Your task to perform on an android device: Open my contact list Image 0: 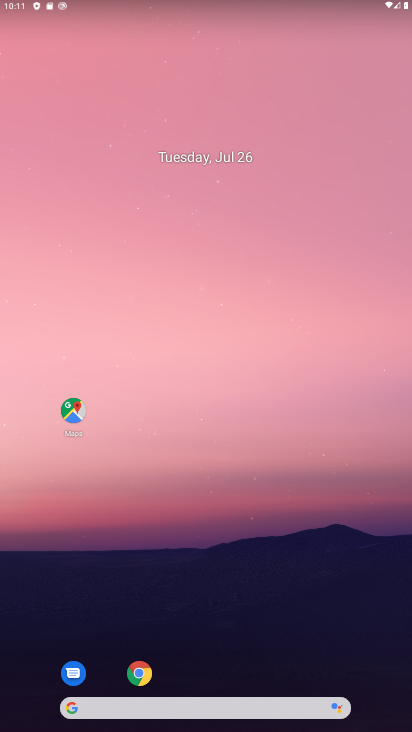
Step 0: drag from (257, 375) to (268, 11)
Your task to perform on an android device: Open my contact list Image 1: 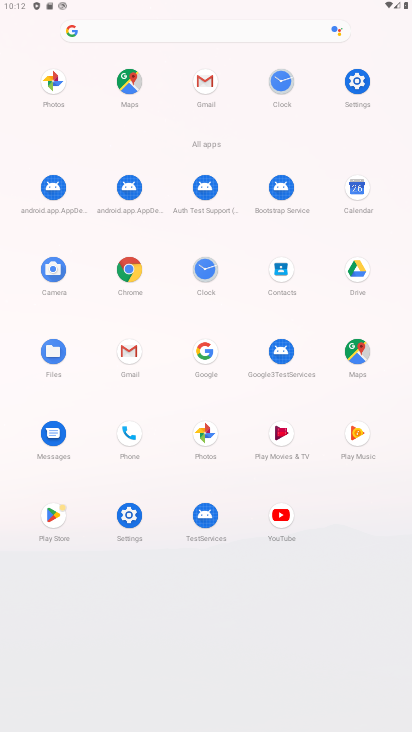
Step 1: click (282, 273)
Your task to perform on an android device: Open my contact list Image 2: 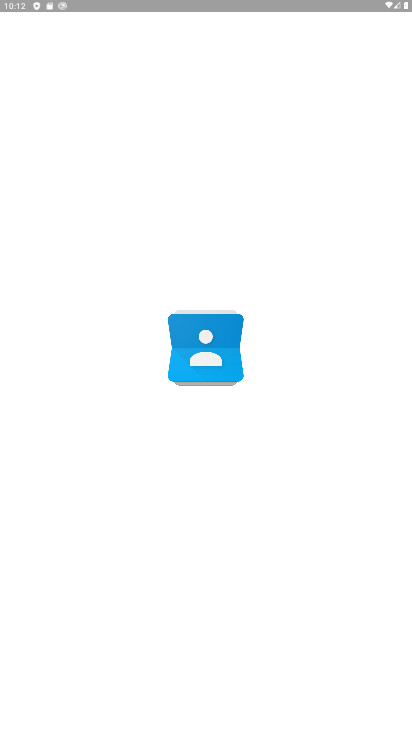
Step 2: click (287, 271)
Your task to perform on an android device: Open my contact list Image 3: 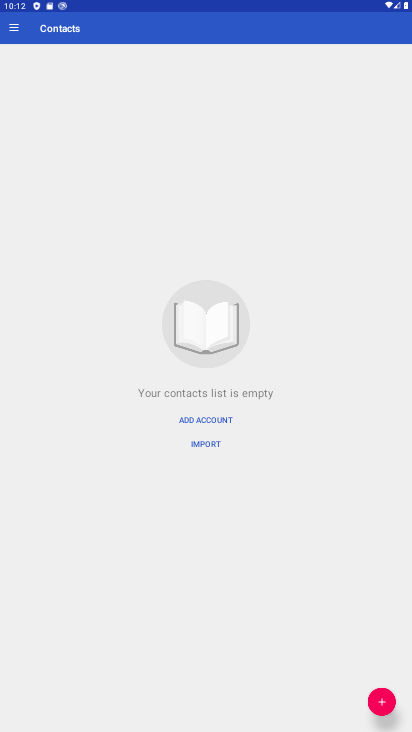
Step 3: click (202, 435)
Your task to perform on an android device: Open my contact list Image 4: 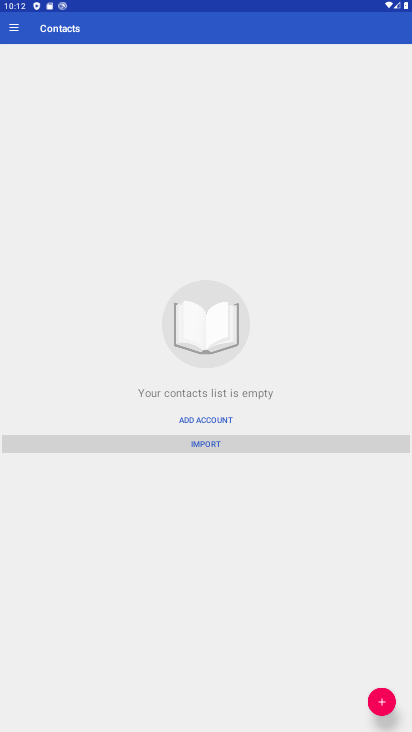
Step 4: click (202, 435)
Your task to perform on an android device: Open my contact list Image 5: 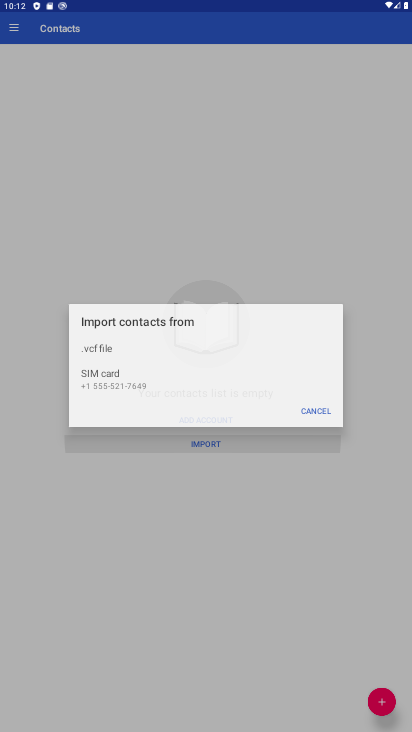
Step 5: click (202, 435)
Your task to perform on an android device: Open my contact list Image 6: 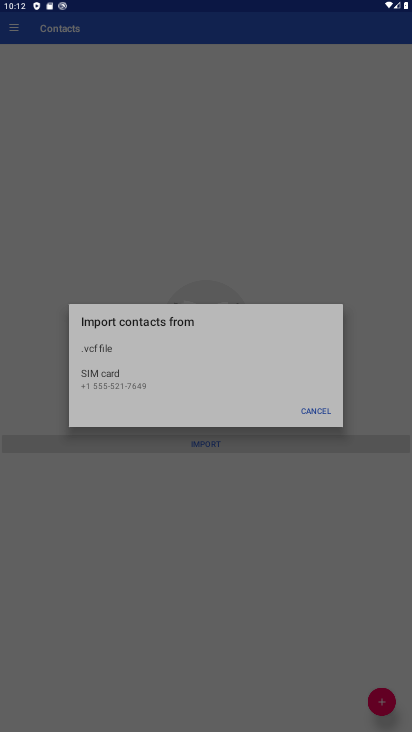
Step 6: click (202, 435)
Your task to perform on an android device: Open my contact list Image 7: 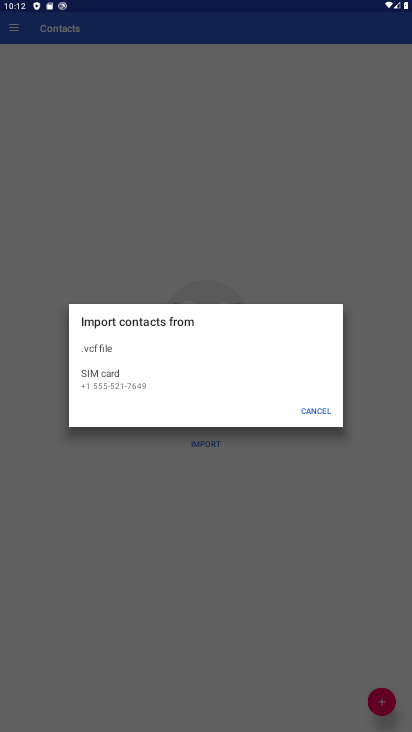
Step 7: click (304, 414)
Your task to perform on an android device: Open my contact list Image 8: 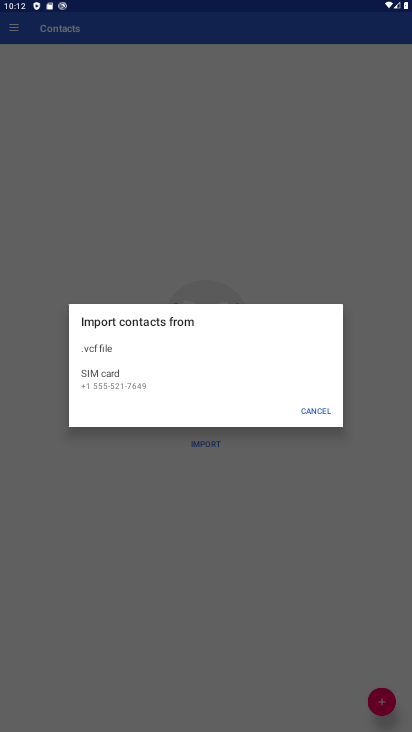
Step 8: click (321, 405)
Your task to perform on an android device: Open my contact list Image 9: 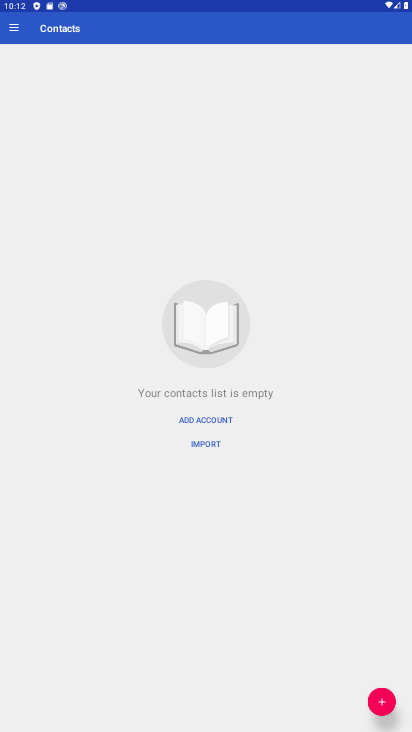
Step 9: click (313, 407)
Your task to perform on an android device: Open my contact list Image 10: 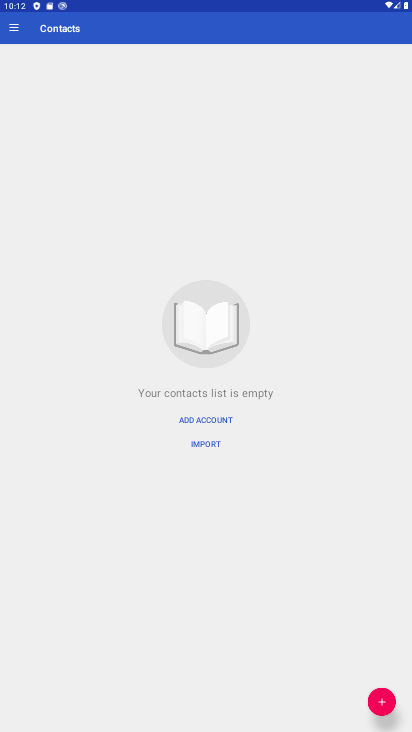
Step 10: task complete